Your task to perform on an android device: open device folders in google photos Image 0: 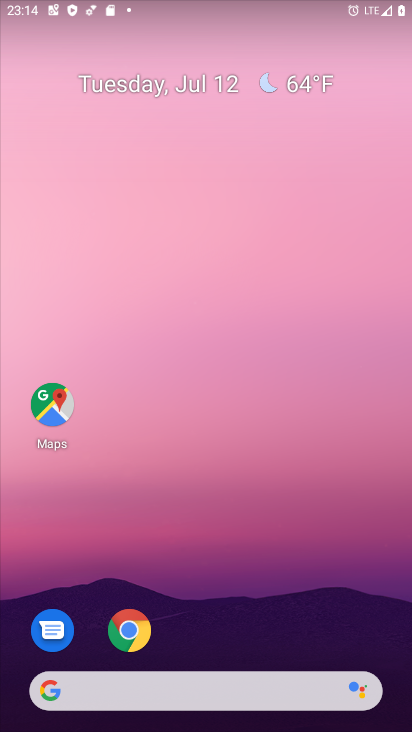
Step 0: drag from (197, 668) to (174, 68)
Your task to perform on an android device: open device folders in google photos Image 1: 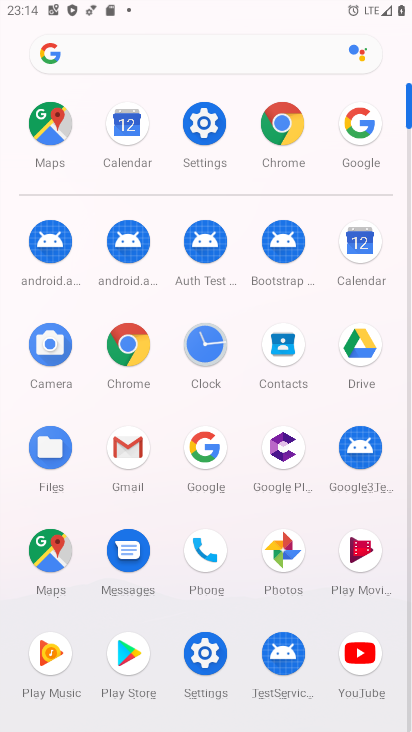
Step 1: click (284, 546)
Your task to perform on an android device: open device folders in google photos Image 2: 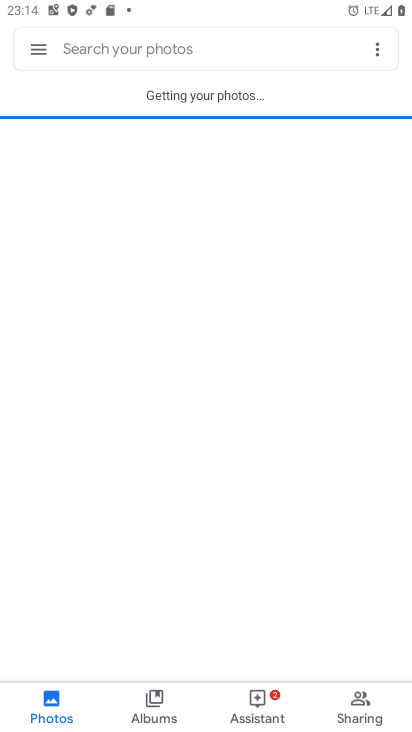
Step 2: drag from (33, 45) to (75, 282)
Your task to perform on an android device: open device folders in google photos Image 3: 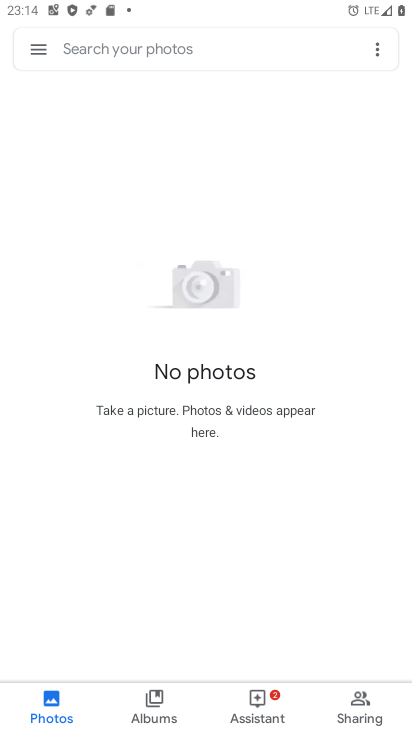
Step 3: click (39, 55)
Your task to perform on an android device: open device folders in google photos Image 4: 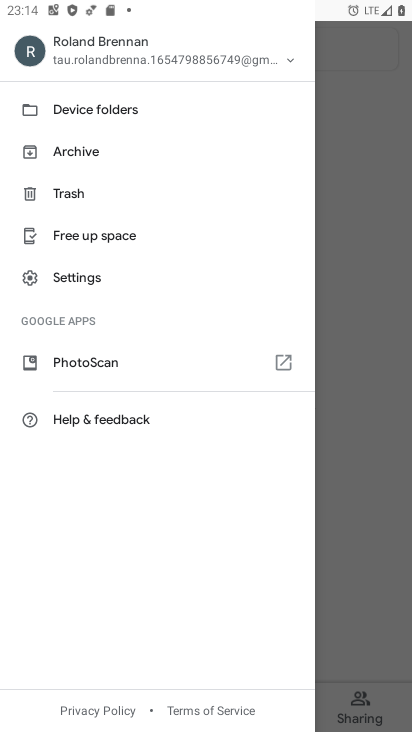
Step 4: click (64, 94)
Your task to perform on an android device: open device folders in google photos Image 5: 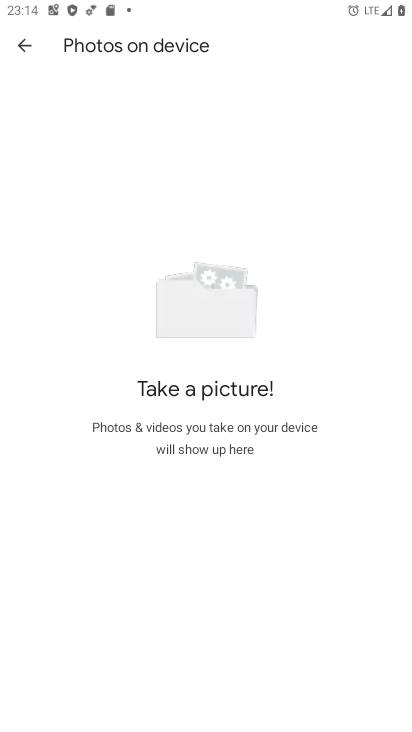
Step 5: task complete